Your task to perform on an android device: toggle show notifications on the lock screen Image 0: 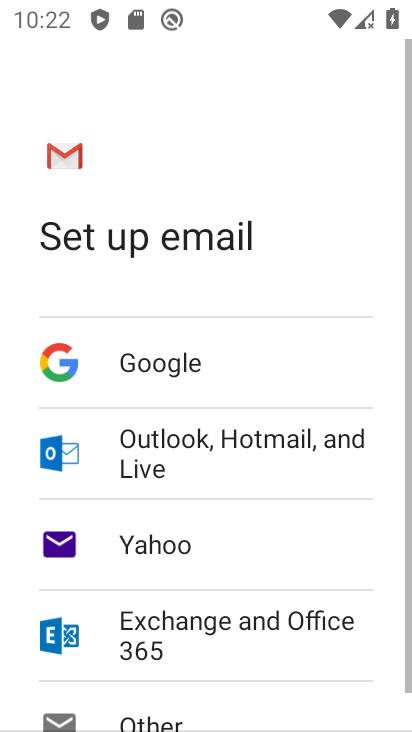
Step 0: press home button
Your task to perform on an android device: toggle show notifications on the lock screen Image 1: 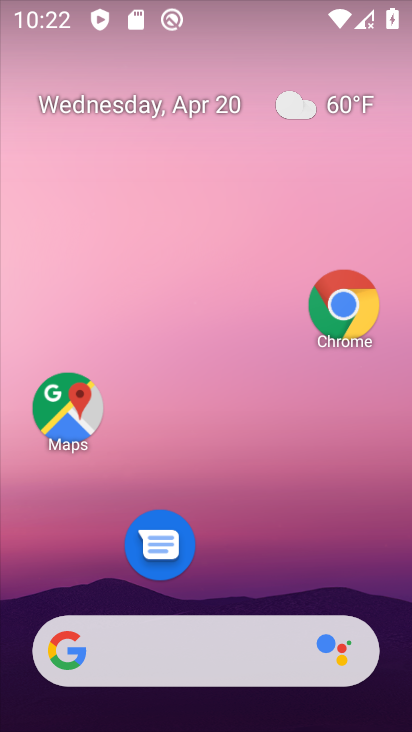
Step 1: drag from (300, 599) to (297, 189)
Your task to perform on an android device: toggle show notifications on the lock screen Image 2: 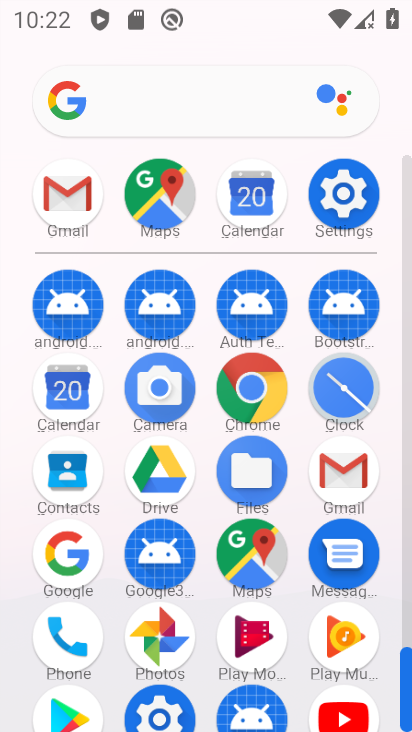
Step 2: click (346, 233)
Your task to perform on an android device: toggle show notifications on the lock screen Image 3: 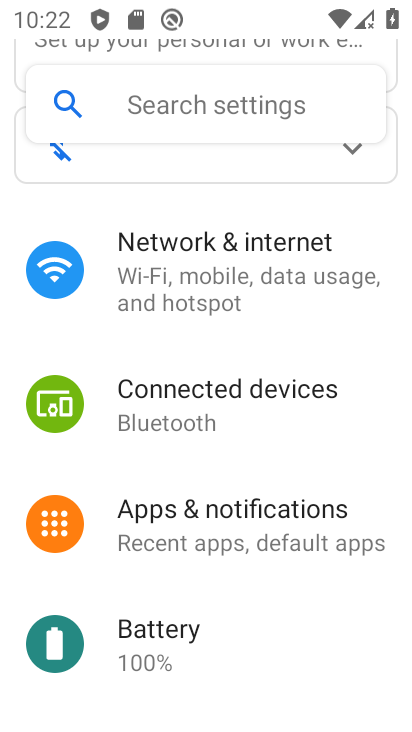
Step 3: click (257, 536)
Your task to perform on an android device: toggle show notifications on the lock screen Image 4: 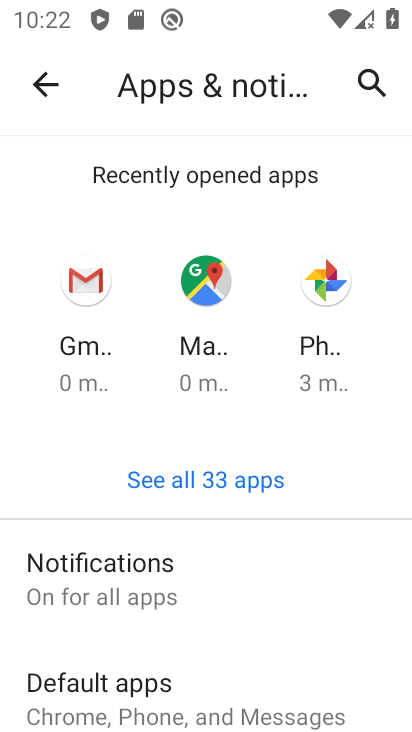
Step 4: click (243, 573)
Your task to perform on an android device: toggle show notifications on the lock screen Image 5: 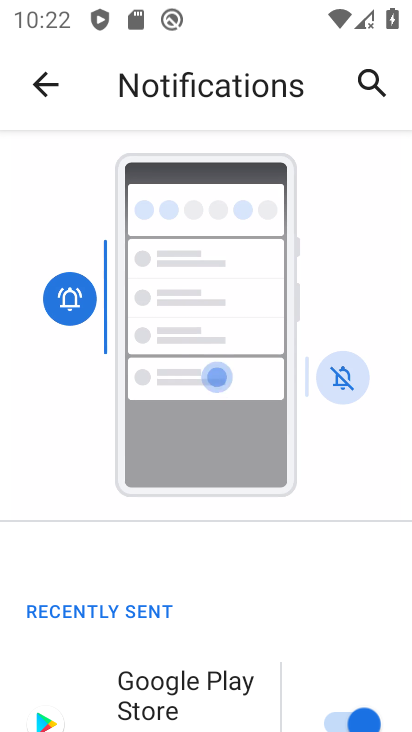
Step 5: drag from (243, 540) to (253, 384)
Your task to perform on an android device: toggle show notifications on the lock screen Image 6: 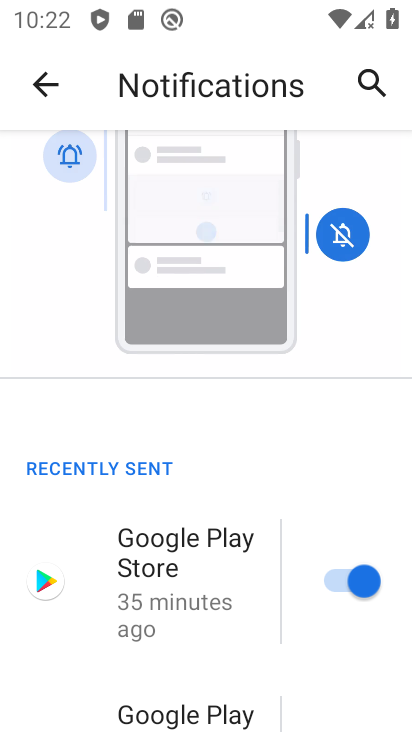
Step 6: drag from (218, 431) to (237, 269)
Your task to perform on an android device: toggle show notifications on the lock screen Image 7: 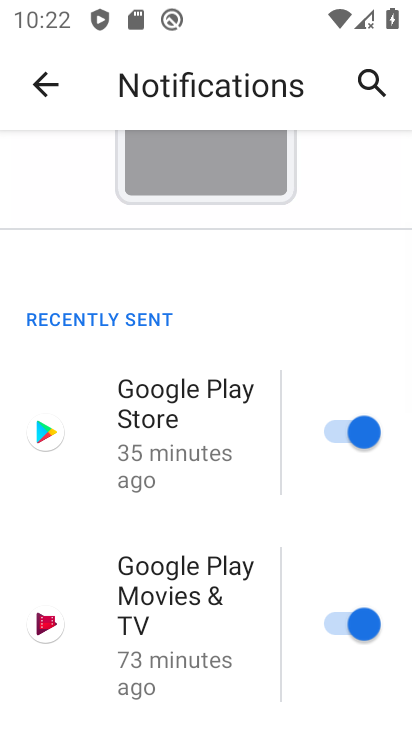
Step 7: drag from (214, 533) to (229, 333)
Your task to perform on an android device: toggle show notifications on the lock screen Image 8: 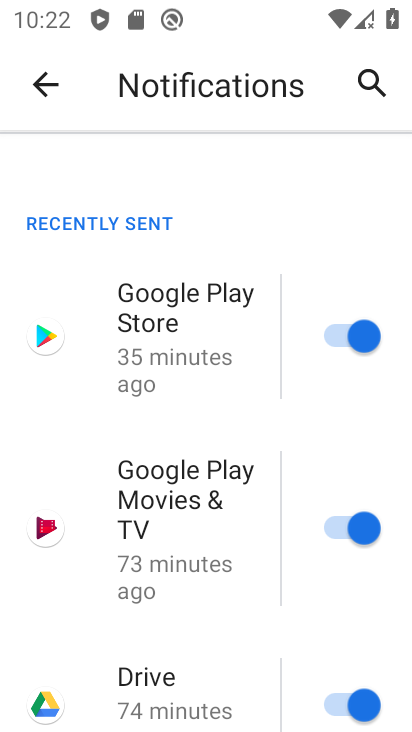
Step 8: drag from (197, 549) to (255, 188)
Your task to perform on an android device: toggle show notifications on the lock screen Image 9: 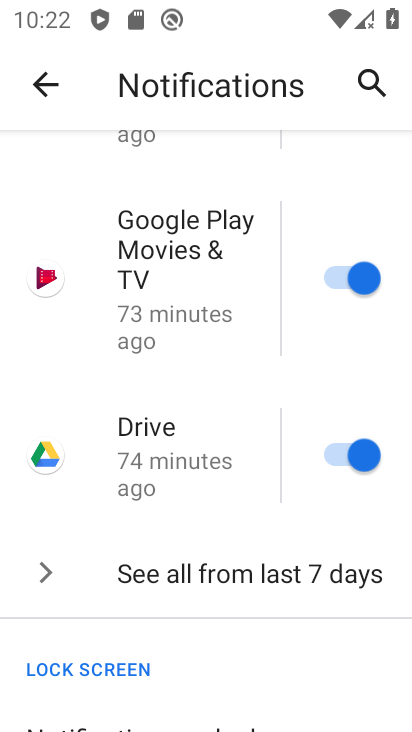
Step 9: drag from (216, 585) to (265, 222)
Your task to perform on an android device: toggle show notifications on the lock screen Image 10: 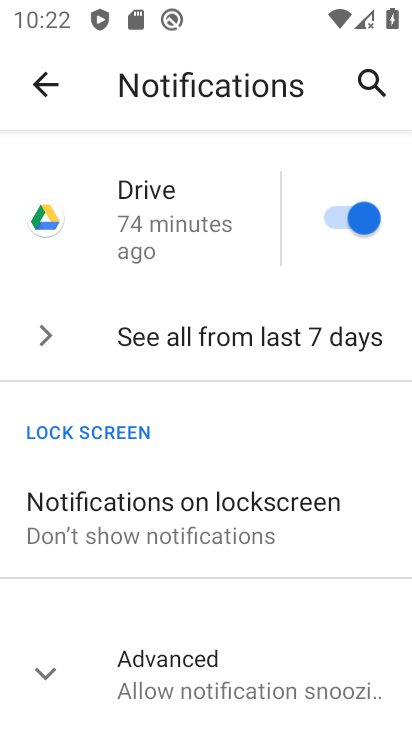
Step 10: click (223, 530)
Your task to perform on an android device: toggle show notifications on the lock screen Image 11: 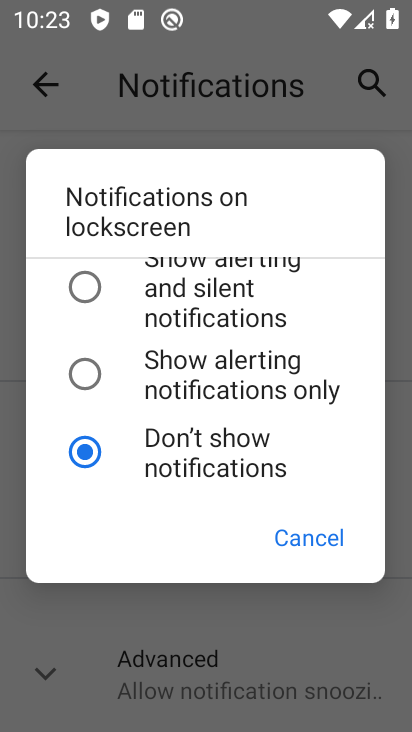
Step 11: click (94, 288)
Your task to perform on an android device: toggle show notifications on the lock screen Image 12: 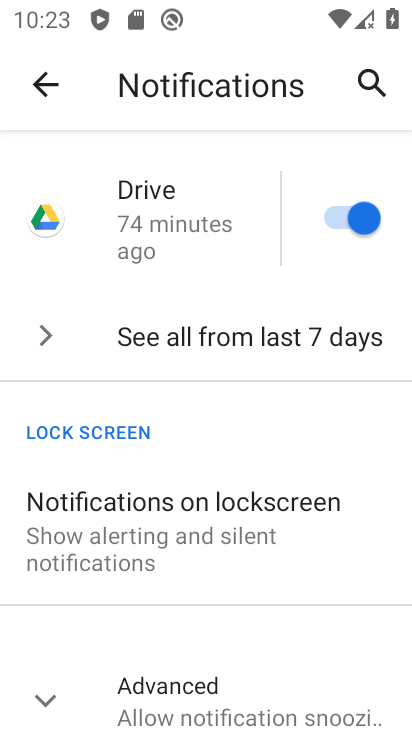
Step 12: task complete